Your task to perform on an android device: Open Chrome and go to settings Image 0: 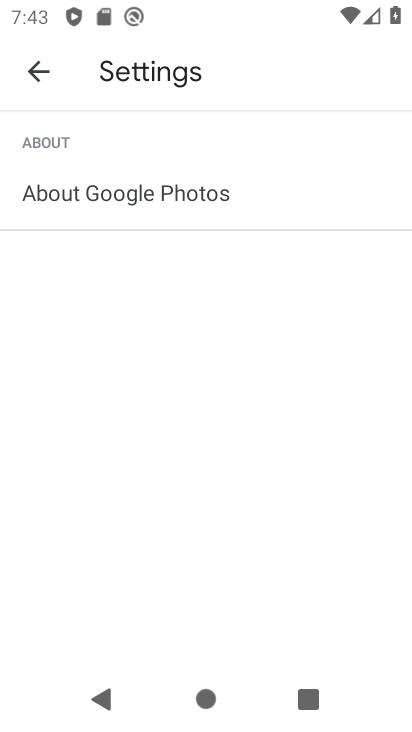
Step 0: press home button
Your task to perform on an android device: Open Chrome and go to settings Image 1: 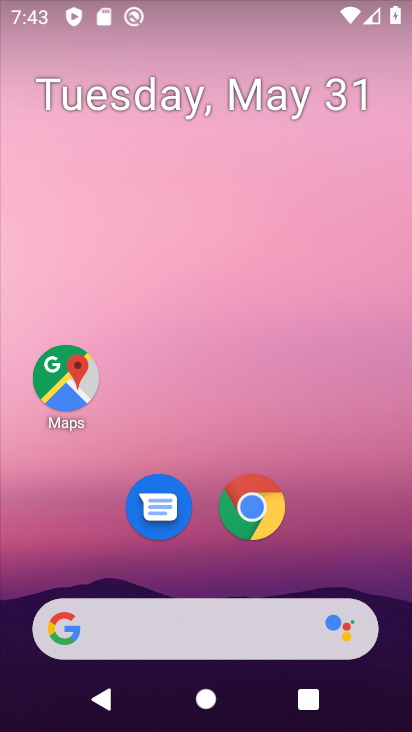
Step 1: drag from (361, 600) to (338, 3)
Your task to perform on an android device: Open Chrome and go to settings Image 2: 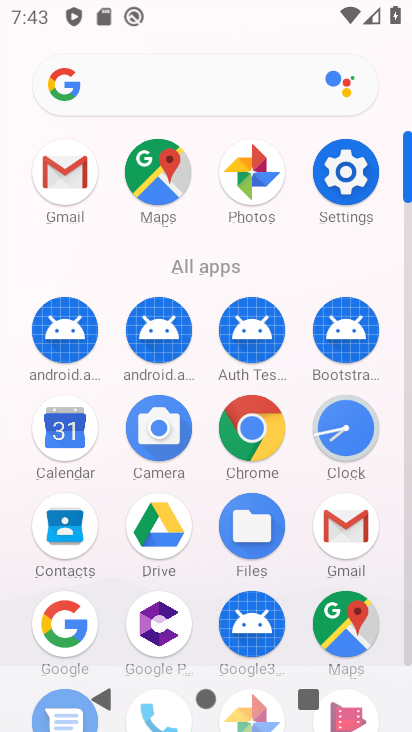
Step 2: click (253, 432)
Your task to perform on an android device: Open Chrome and go to settings Image 3: 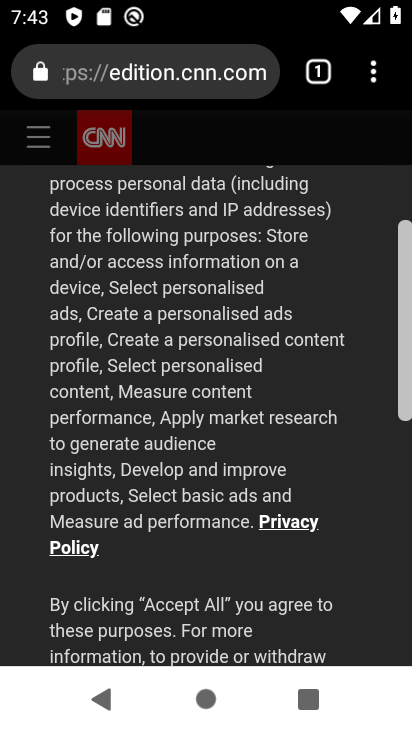
Step 3: click (373, 75)
Your task to perform on an android device: Open Chrome and go to settings Image 4: 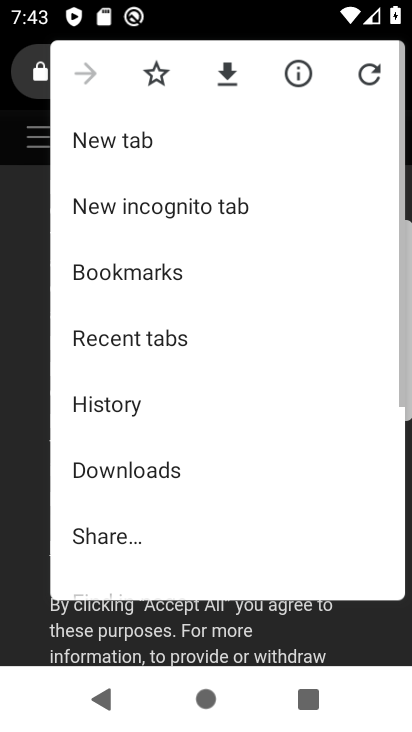
Step 4: drag from (232, 506) to (236, 105)
Your task to perform on an android device: Open Chrome and go to settings Image 5: 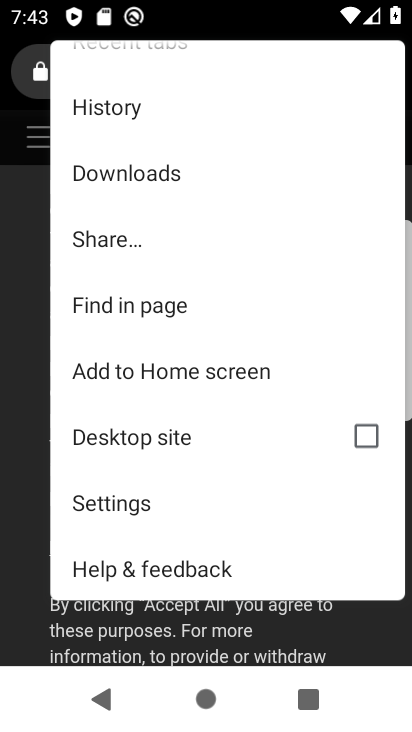
Step 5: click (124, 500)
Your task to perform on an android device: Open Chrome and go to settings Image 6: 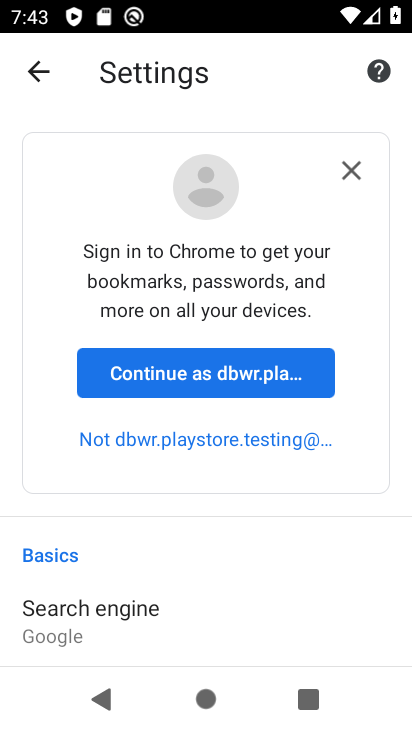
Step 6: task complete